Your task to perform on an android device: What's on my calendar today? Image 0: 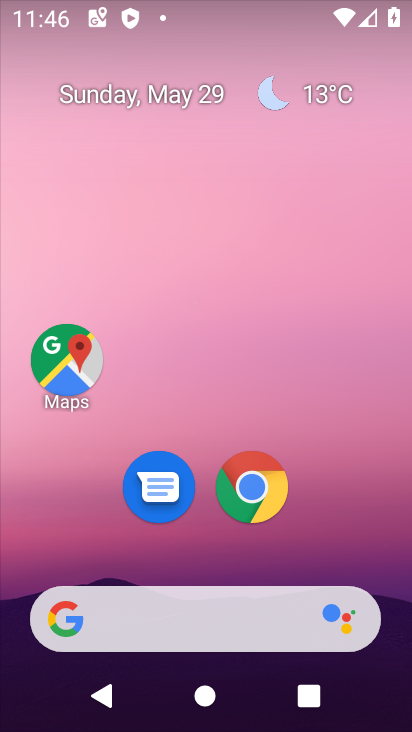
Step 0: drag from (330, 521) to (276, 95)
Your task to perform on an android device: What's on my calendar today? Image 1: 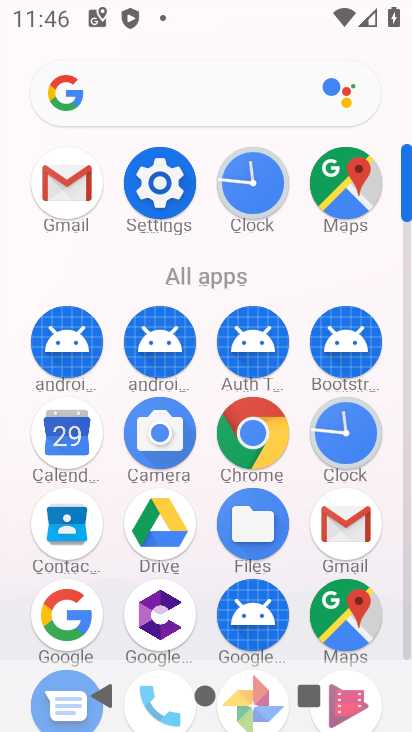
Step 1: click (56, 424)
Your task to perform on an android device: What's on my calendar today? Image 2: 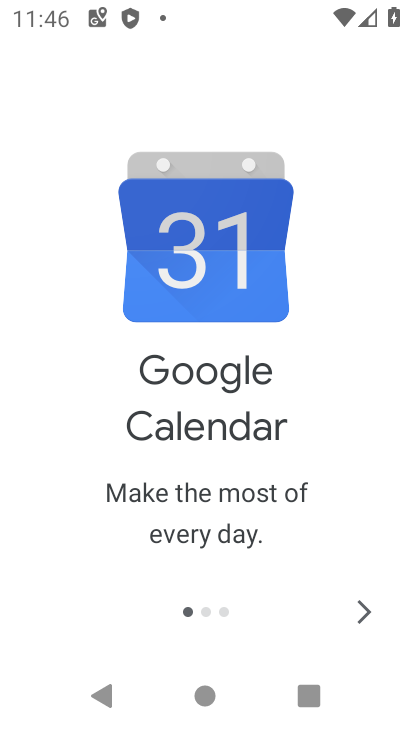
Step 2: click (362, 619)
Your task to perform on an android device: What's on my calendar today? Image 3: 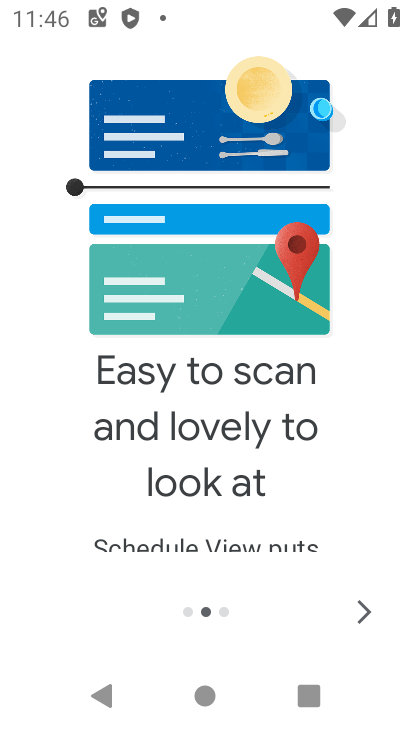
Step 3: click (363, 619)
Your task to perform on an android device: What's on my calendar today? Image 4: 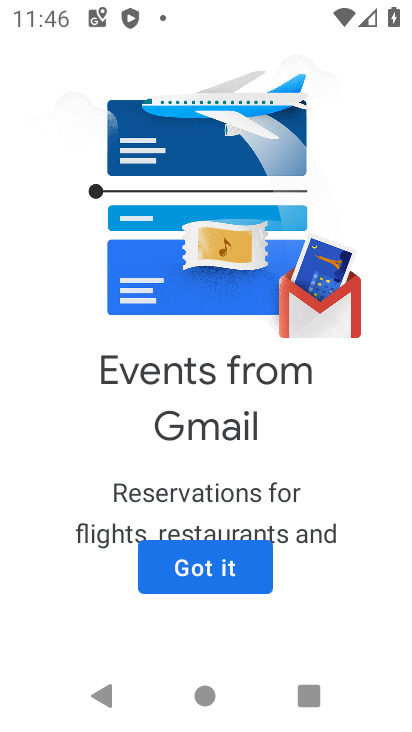
Step 4: click (247, 564)
Your task to perform on an android device: What's on my calendar today? Image 5: 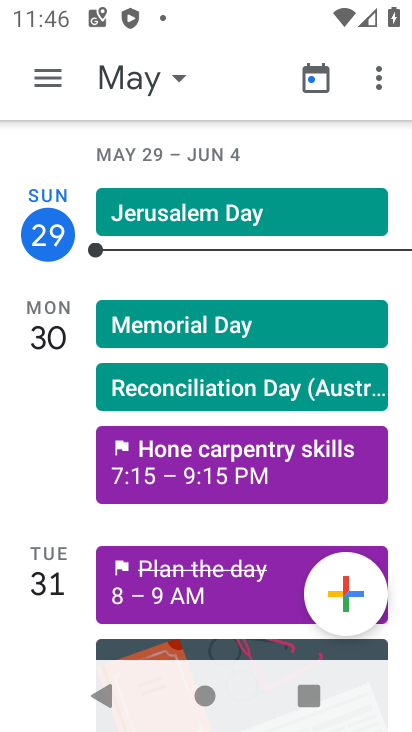
Step 5: click (60, 84)
Your task to perform on an android device: What's on my calendar today? Image 6: 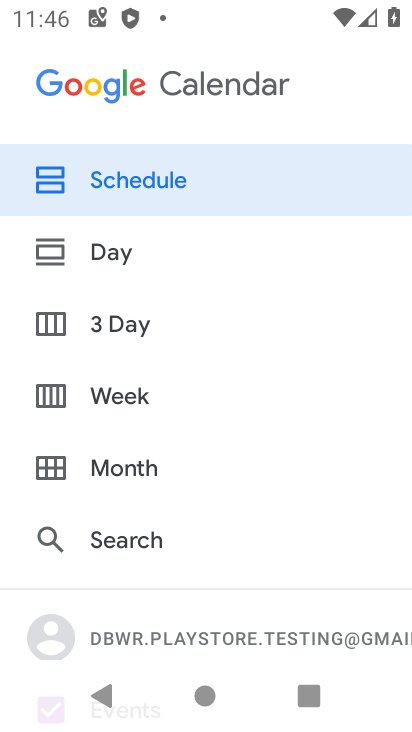
Step 6: click (80, 248)
Your task to perform on an android device: What's on my calendar today? Image 7: 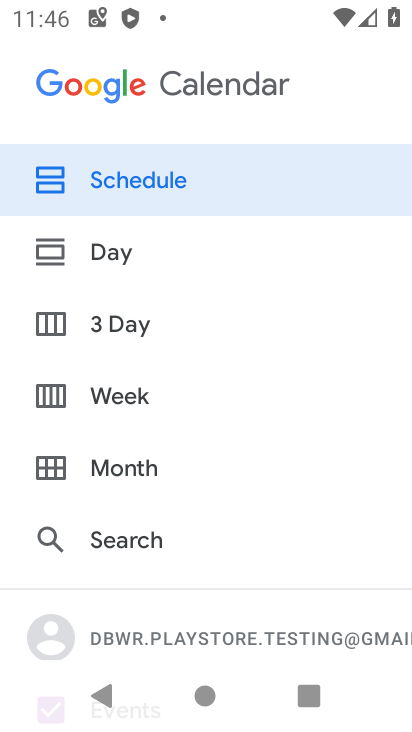
Step 7: click (123, 268)
Your task to perform on an android device: What's on my calendar today? Image 8: 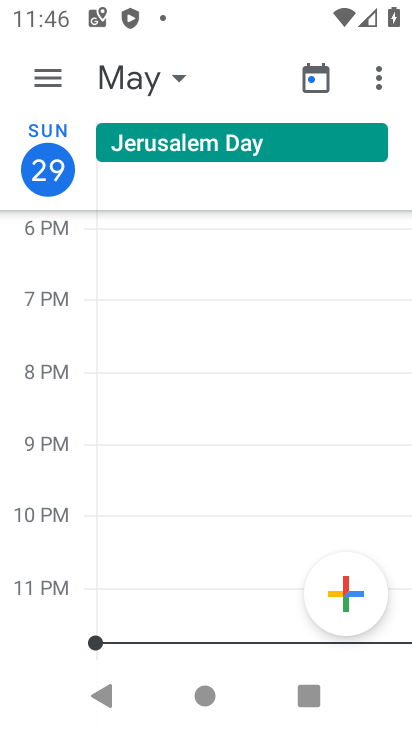
Step 8: click (158, 75)
Your task to perform on an android device: What's on my calendar today? Image 9: 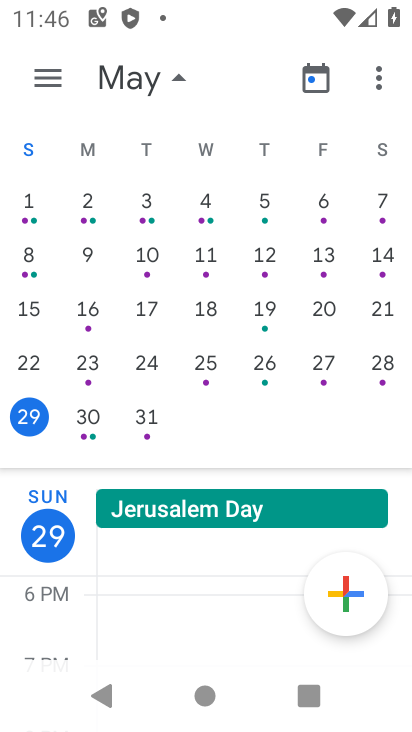
Step 9: click (93, 418)
Your task to perform on an android device: What's on my calendar today? Image 10: 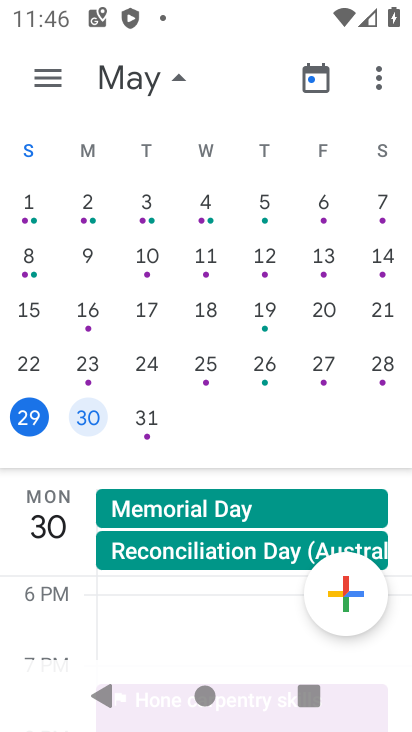
Step 10: task complete